Your task to perform on an android device: What's the latest video from GameSpot Trailers? Image 0: 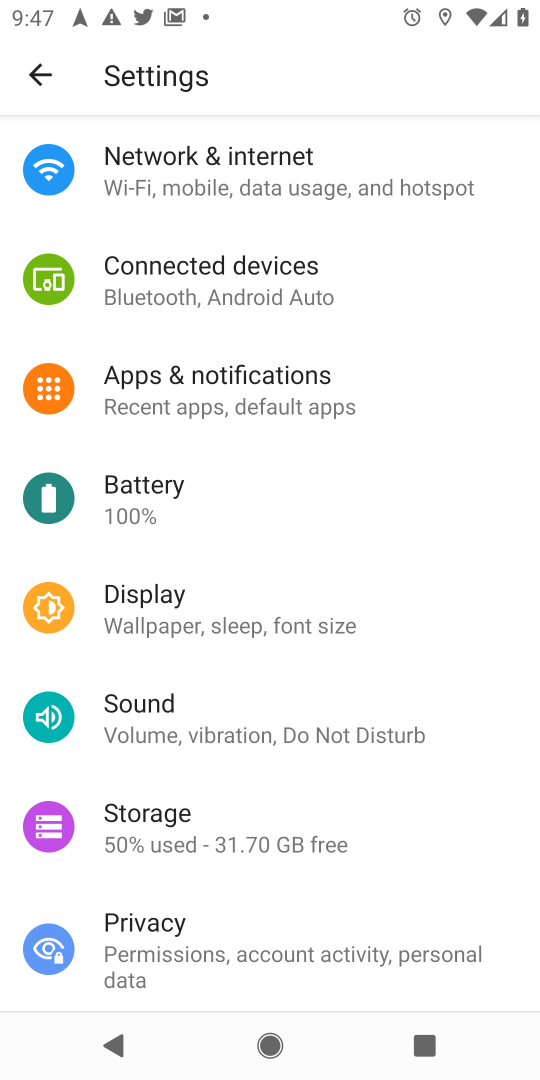
Step 0: press home button
Your task to perform on an android device: What's the latest video from GameSpot Trailers? Image 1: 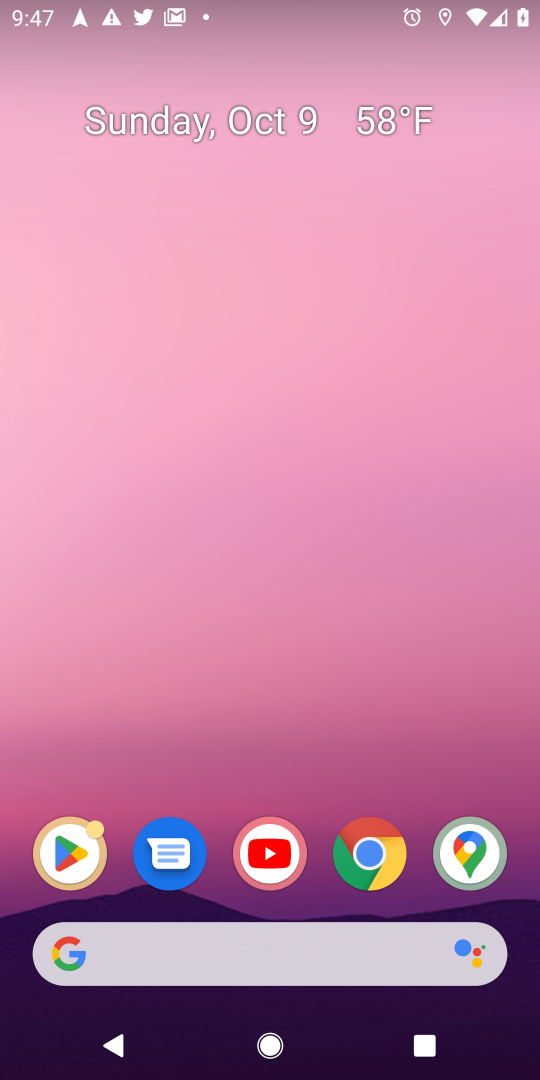
Step 1: click (259, 854)
Your task to perform on an android device: What's the latest video from GameSpot Trailers? Image 2: 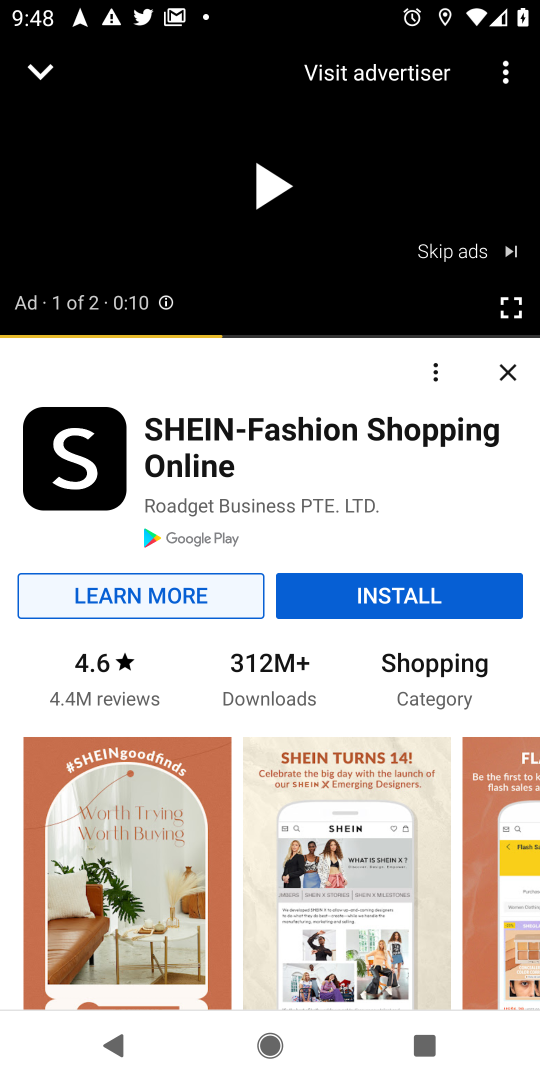
Step 2: drag from (281, 242) to (372, 907)
Your task to perform on an android device: What's the latest video from GameSpot Trailers? Image 3: 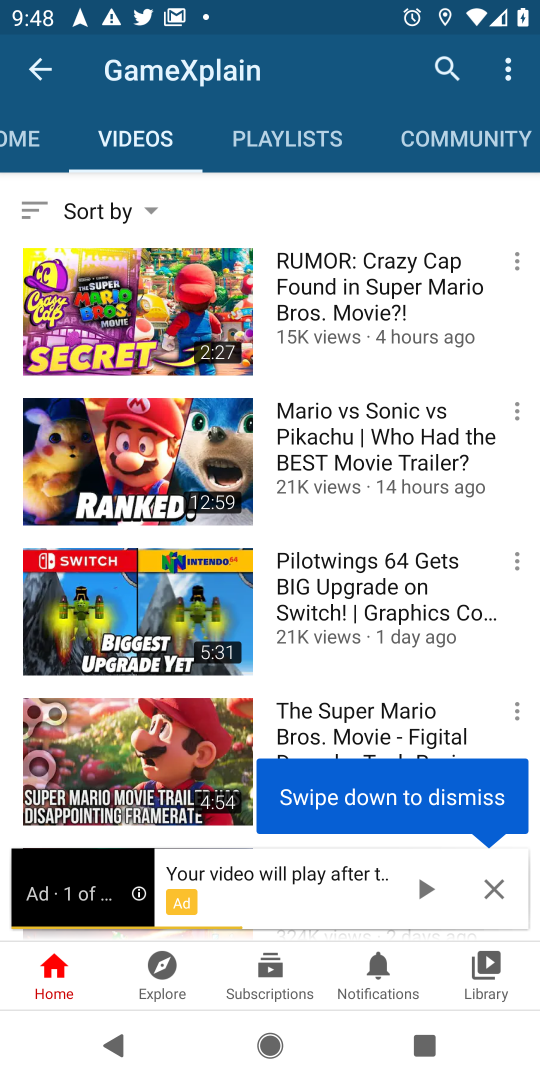
Step 3: click (488, 879)
Your task to perform on an android device: What's the latest video from GameSpot Trailers? Image 4: 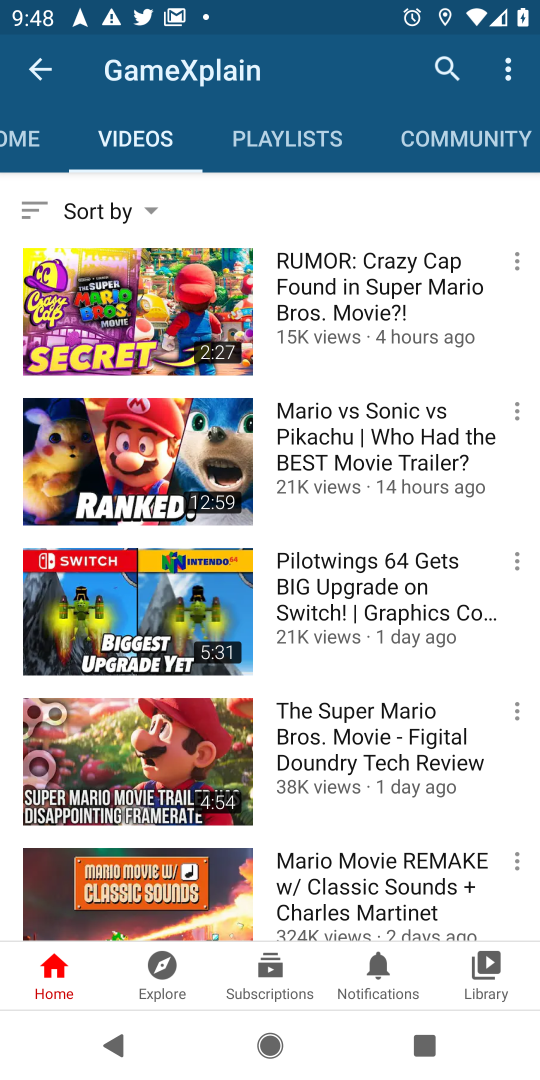
Step 4: click (452, 61)
Your task to perform on an android device: What's the latest video from GameSpot Trailers? Image 5: 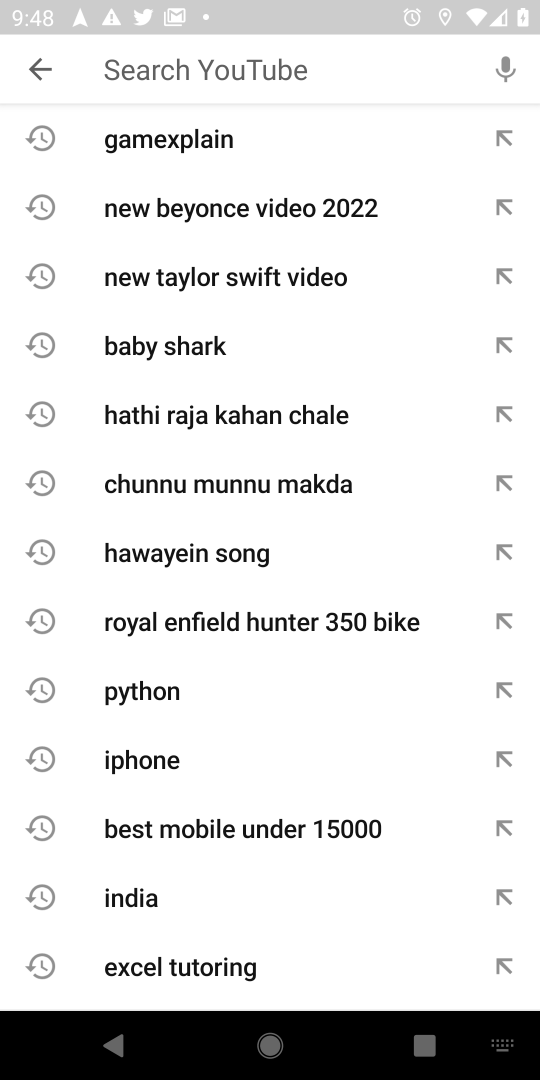
Step 5: type "gamespot trailers"
Your task to perform on an android device: What's the latest video from GameSpot Trailers? Image 6: 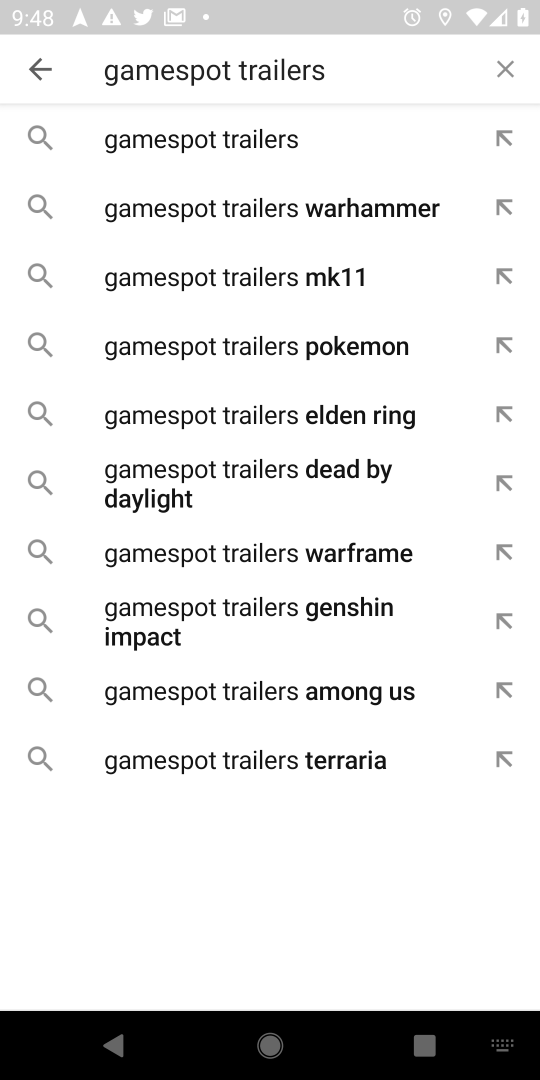
Step 6: click (317, 141)
Your task to perform on an android device: What's the latest video from GameSpot Trailers? Image 7: 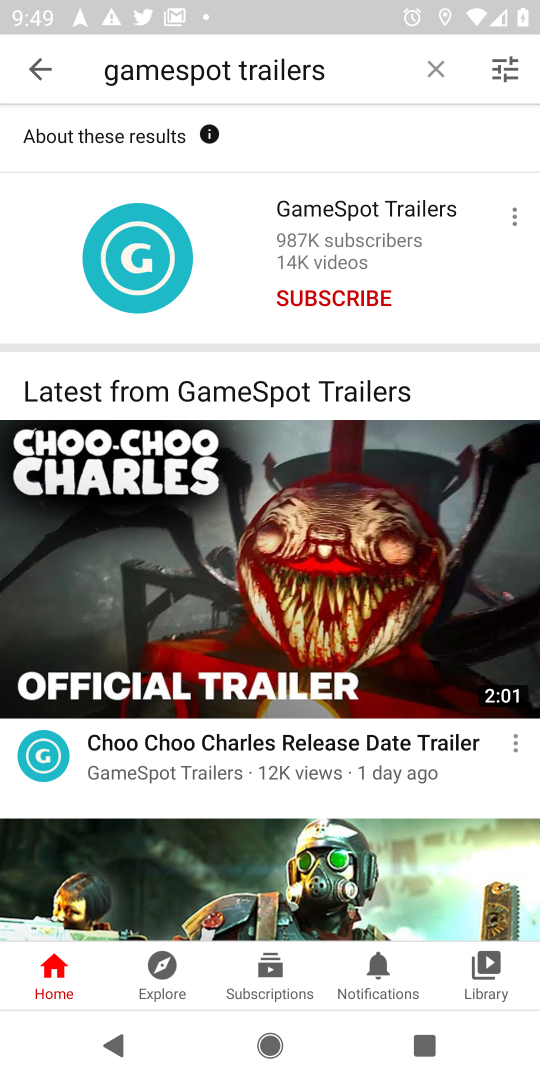
Step 7: click (421, 207)
Your task to perform on an android device: What's the latest video from GameSpot Trailers? Image 8: 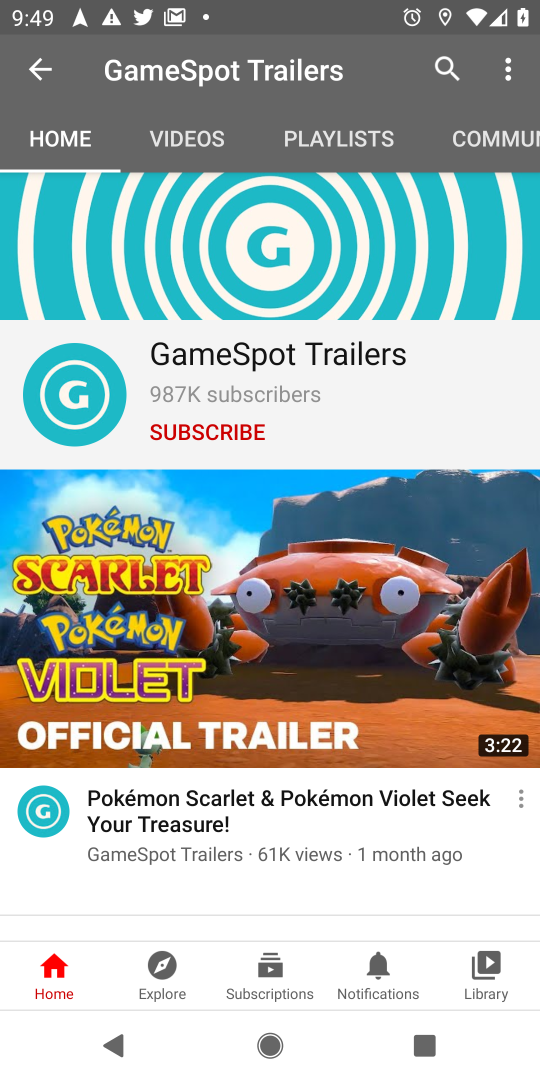
Step 8: click (172, 144)
Your task to perform on an android device: What's the latest video from GameSpot Trailers? Image 9: 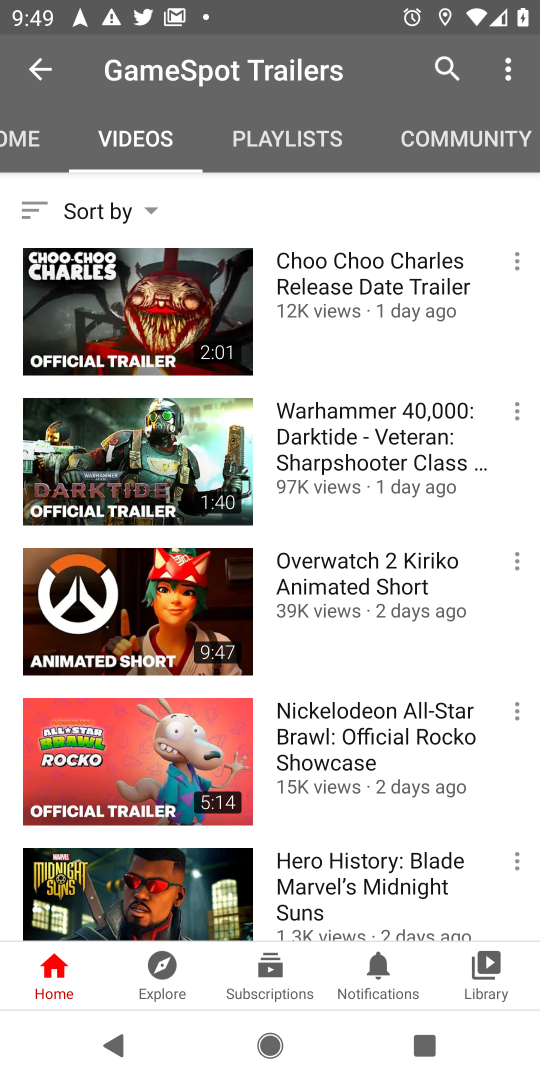
Step 9: click (375, 287)
Your task to perform on an android device: What's the latest video from GameSpot Trailers? Image 10: 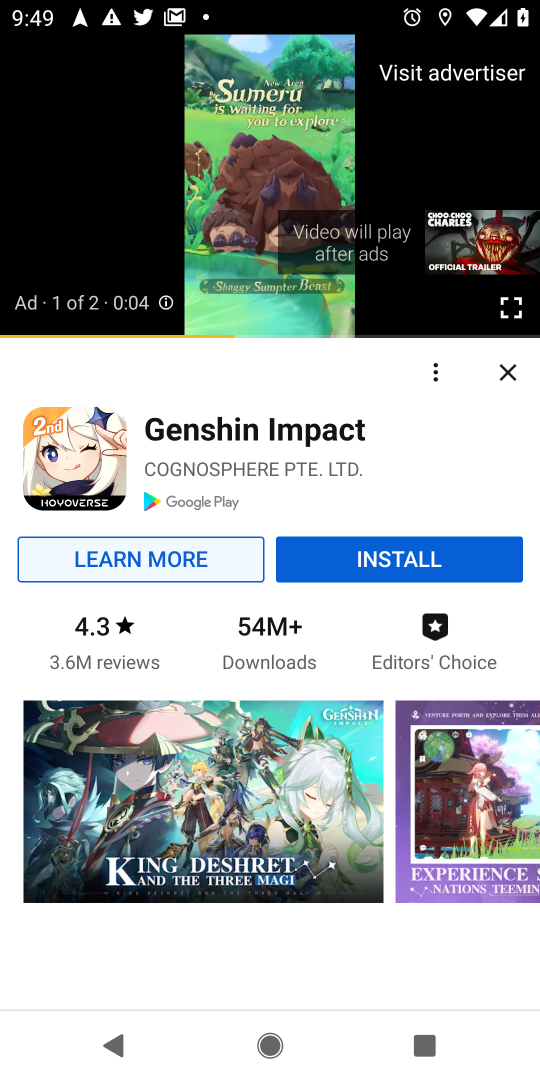
Step 10: task complete